Your task to perform on an android device: delete browsing data in the chrome app Image 0: 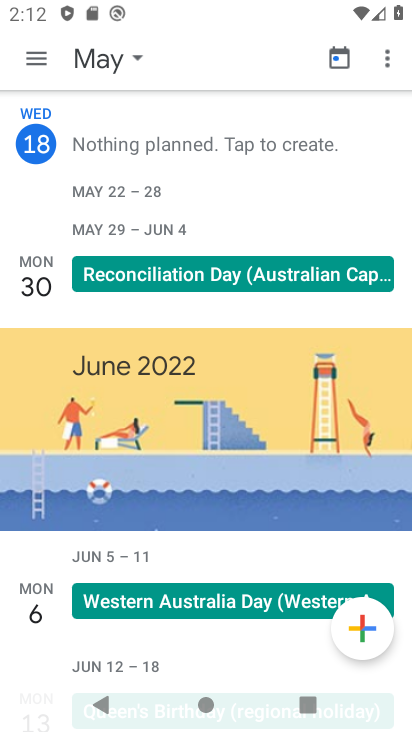
Step 0: press home button
Your task to perform on an android device: delete browsing data in the chrome app Image 1: 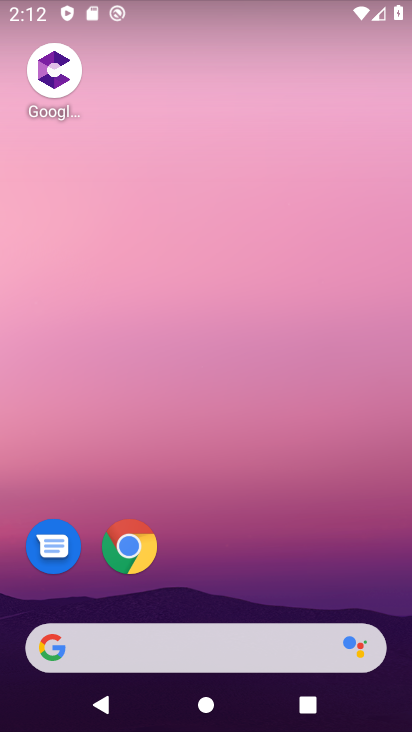
Step 1: drag from (234, 715) to (280, 110)
Your task to perform on an android device: delete browsing data in the chrome app Image 2: 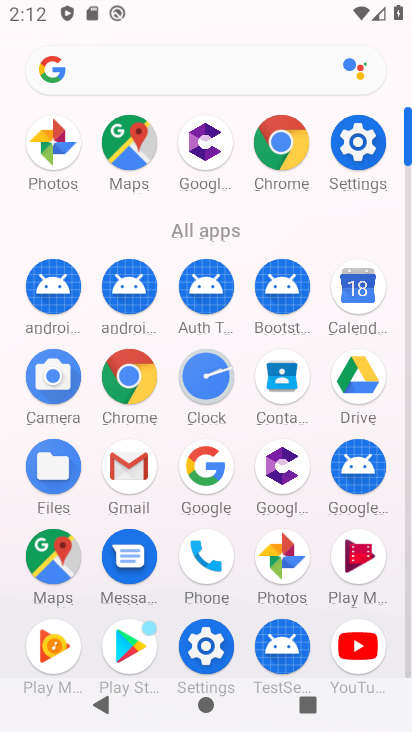
Step 2: click (124, 372)
Your task to perform on an android device: delete browsing data in the chrome app Image 3: 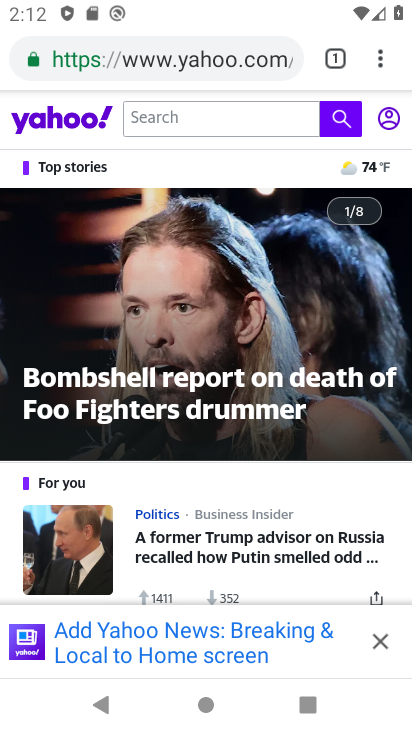
Step 3: click (381, 66)
Your task to perform on an android device: delete browsing data in the chrome app Image 4: 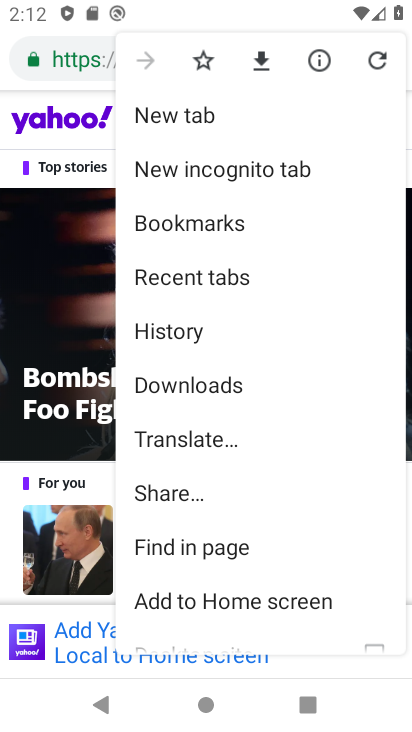
Step 4: click (183, 328)
Your task to perform on an android device: delete browsing data in the chrome app Image 5: 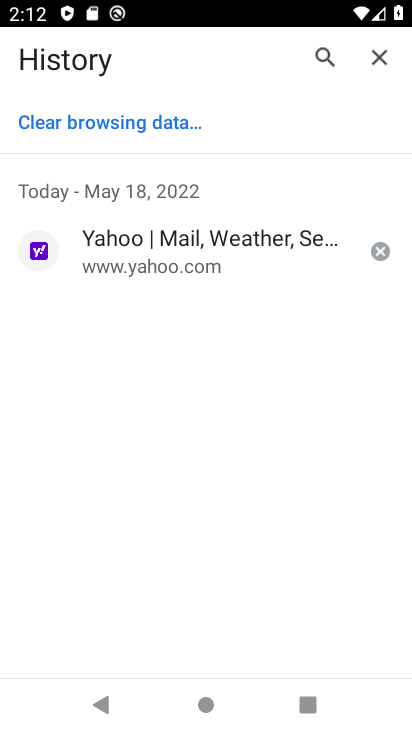
Step 5: click (88, 118)
Your task to perform on an android device: delete browsing data in the chrome app Image 6: 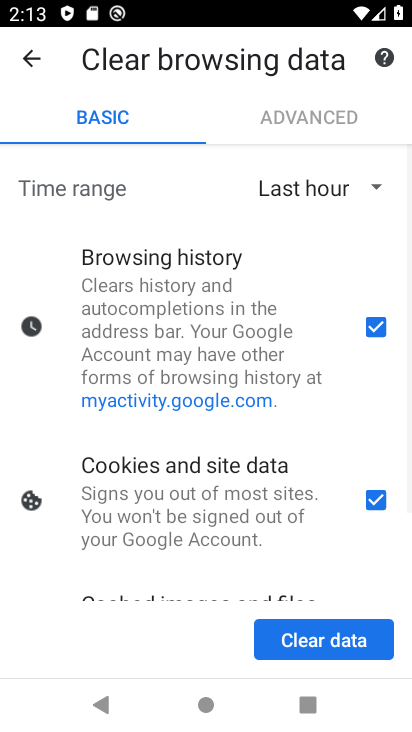
Step 6: click (371, 503)
Your task to perform on an android device: delete browsing data in the chrome app Image 7: 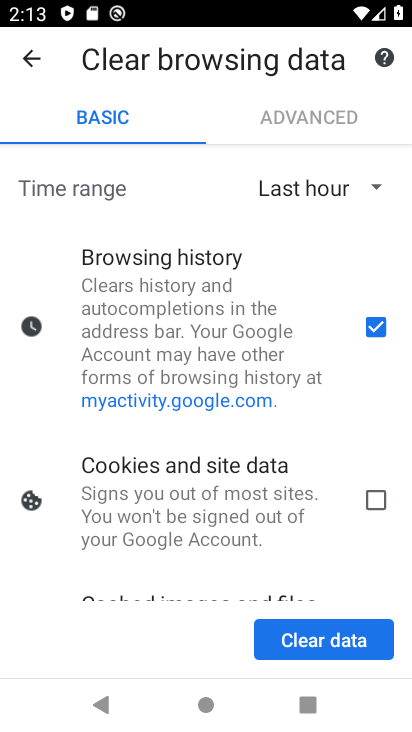
Step 7: drag from (308, 551) to (331, 370)
Your task to perform on an android device: delete browsing data in the chrome app Image 8: 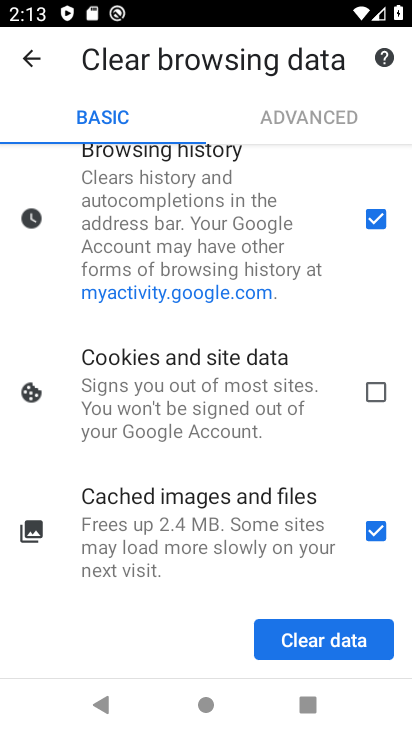
Step 8: click (377, 525)
Your task to perform on an android device: delete browsing data in the chrome app Image 9: 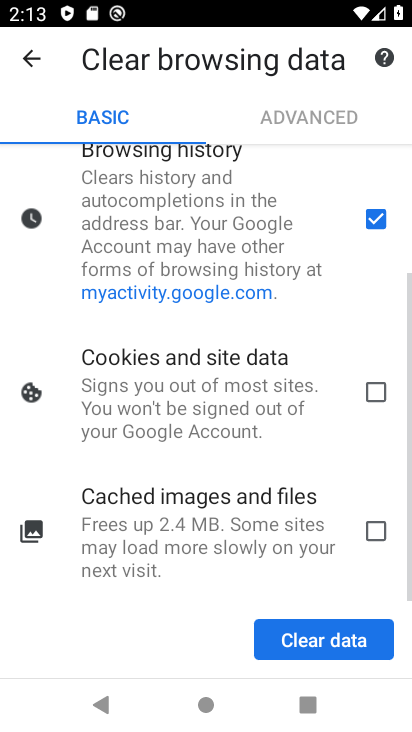
Step 9: click (340, 635)
Your task to perform on an android device: delete browsing data in the chrome app Image 10: 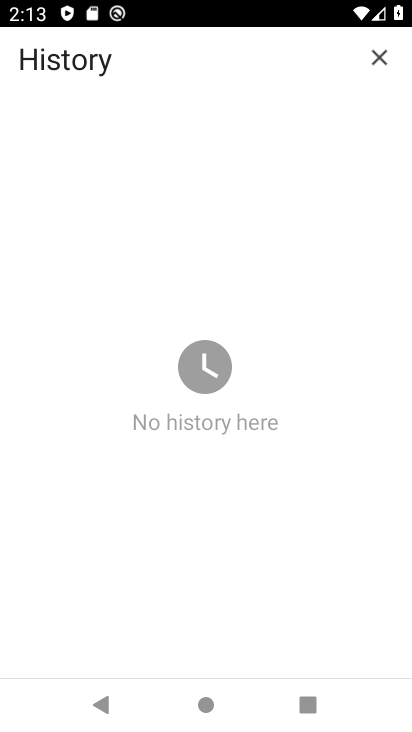
Step 10: task complete